Your task to perform on an android device: Go to Maps Image 0: 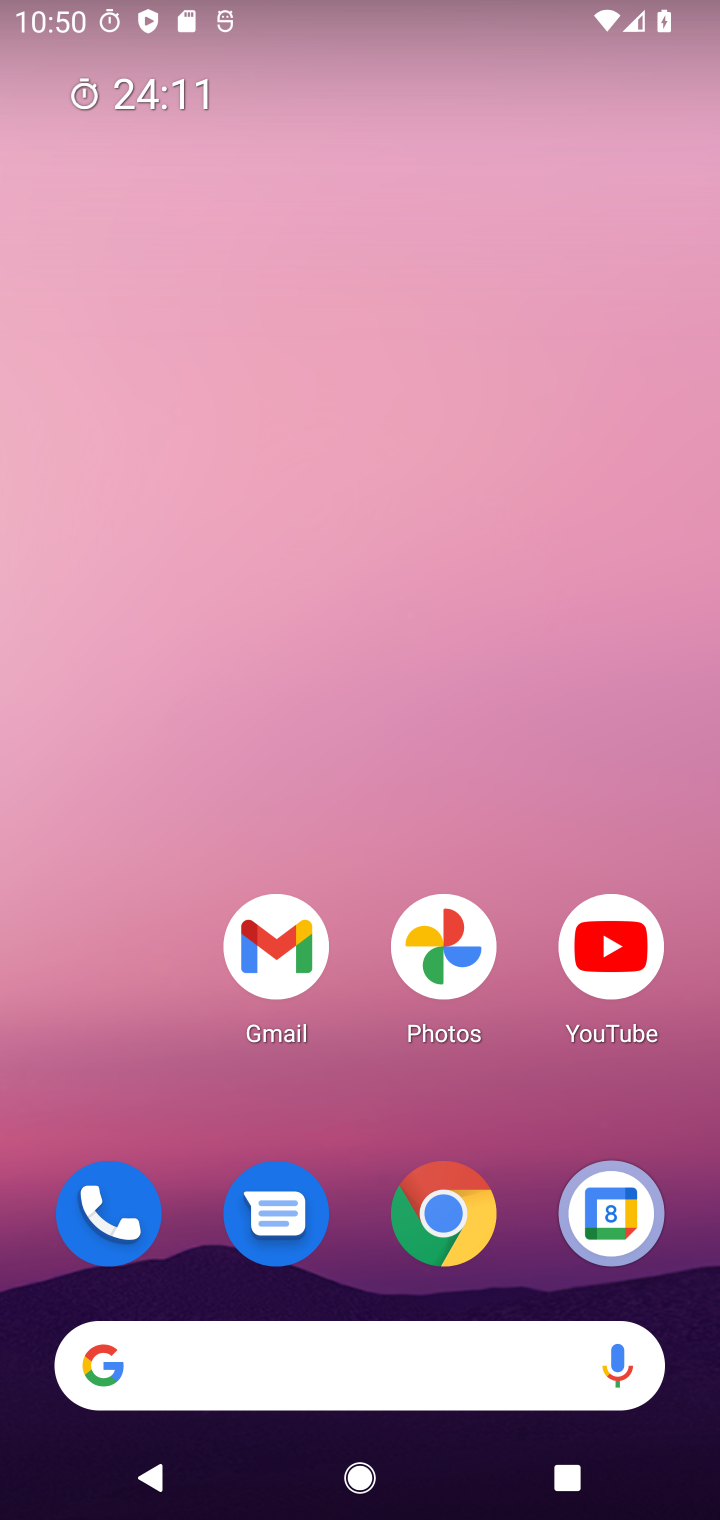
Step 0: drag from (376, 1034) to (421, 329)
Your task to perform on an android device: Go to Maps Image 1: 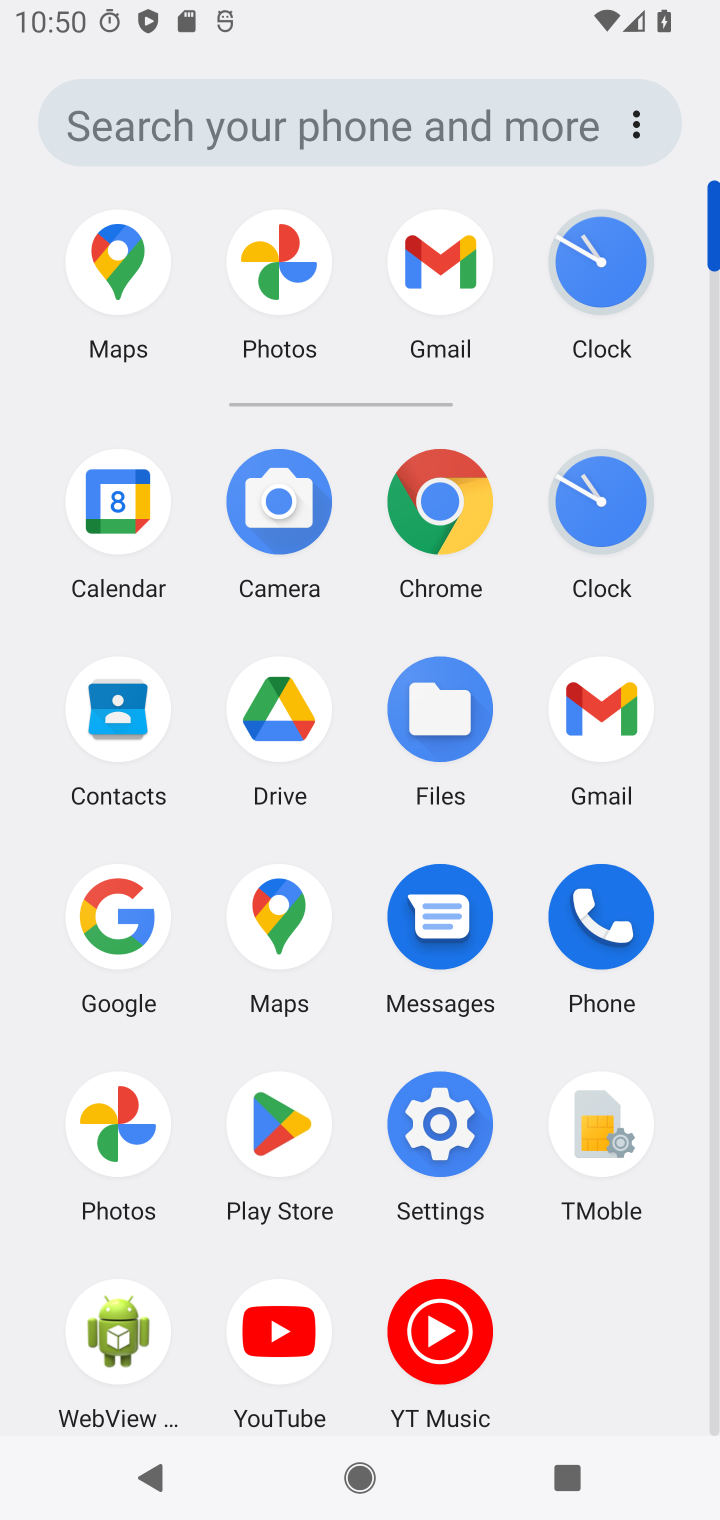
Step 1: click (301, 950)
Your task to perform on an android device: Go to Maps Image 2: 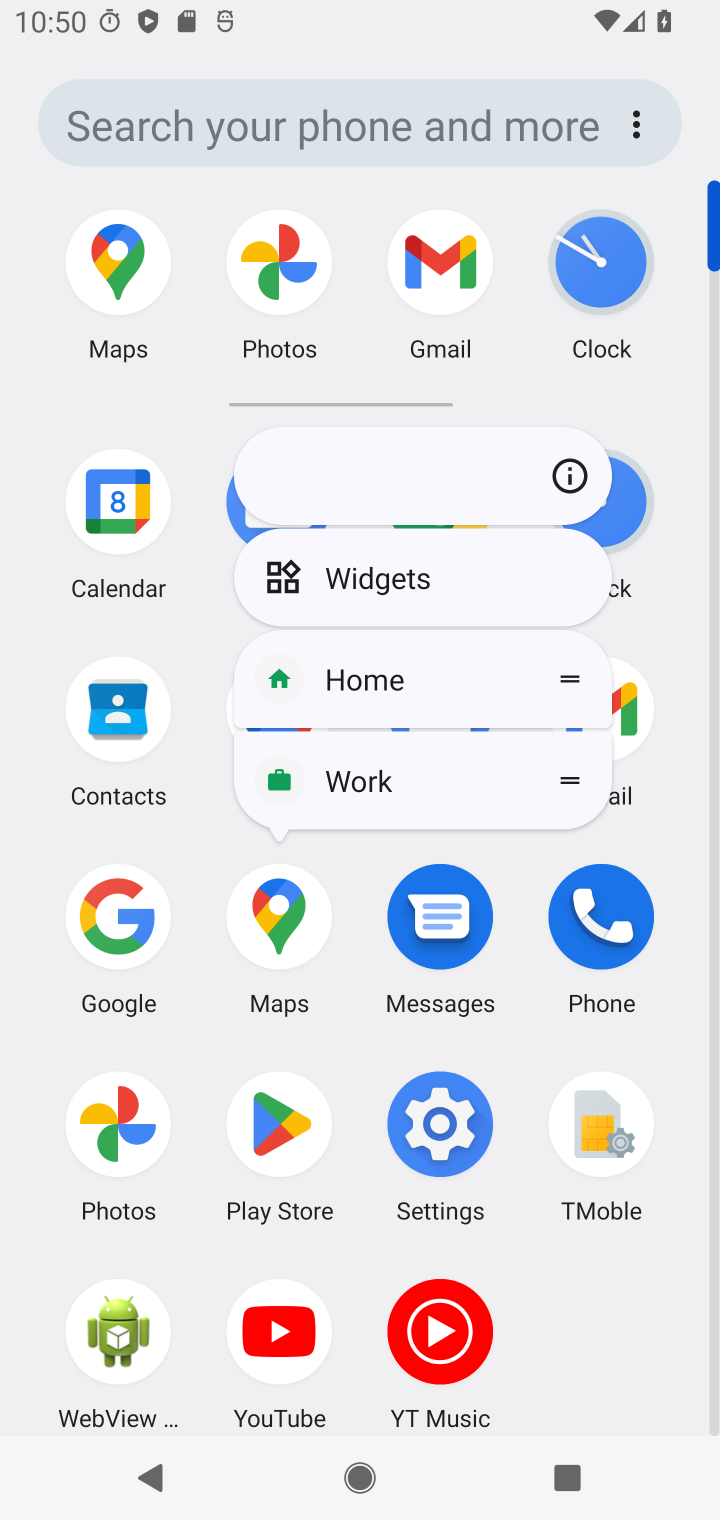
Step 2: click (301, 948)
Your task to perform on an android device: Go to Maps Image 3: 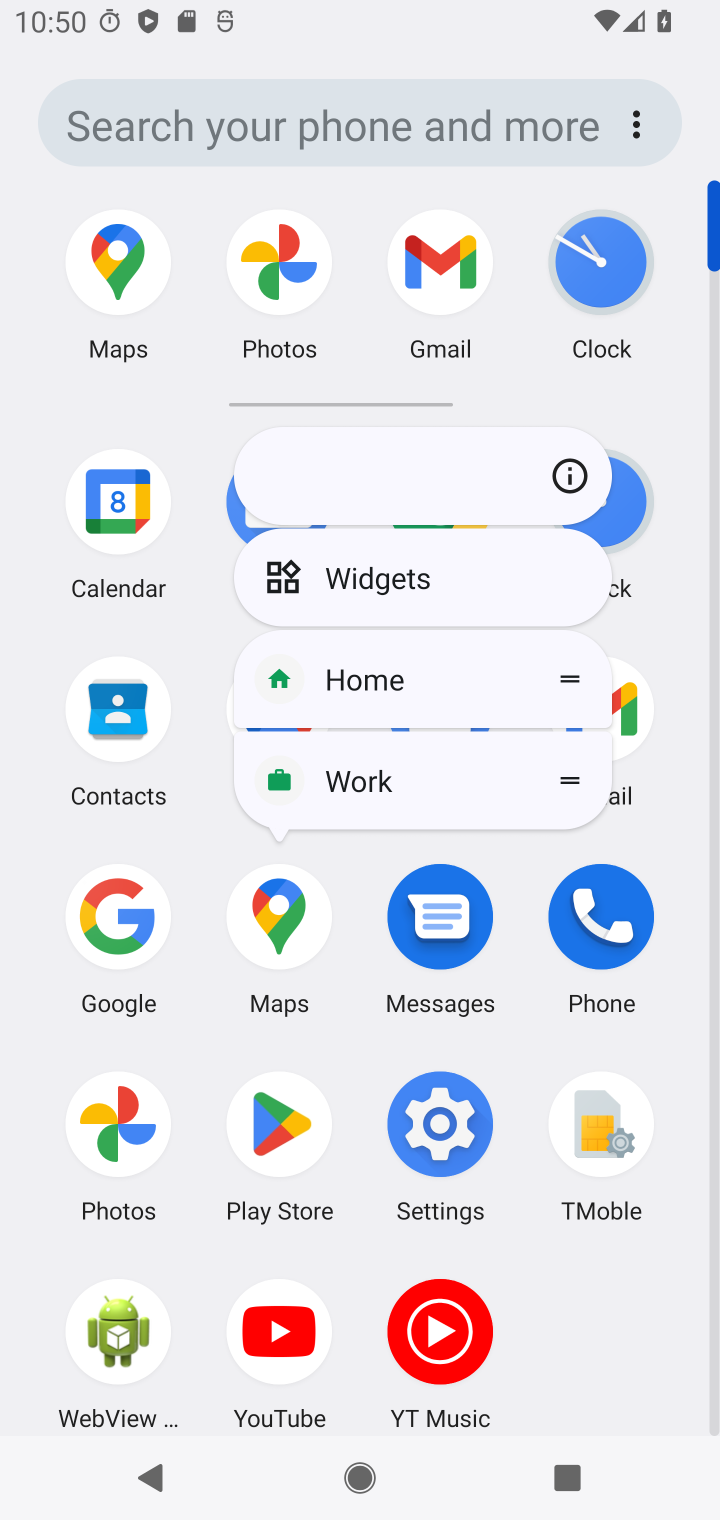
Step 3: click (279, 945)
Your task to perform on an android device: Go to Maps Image 4: 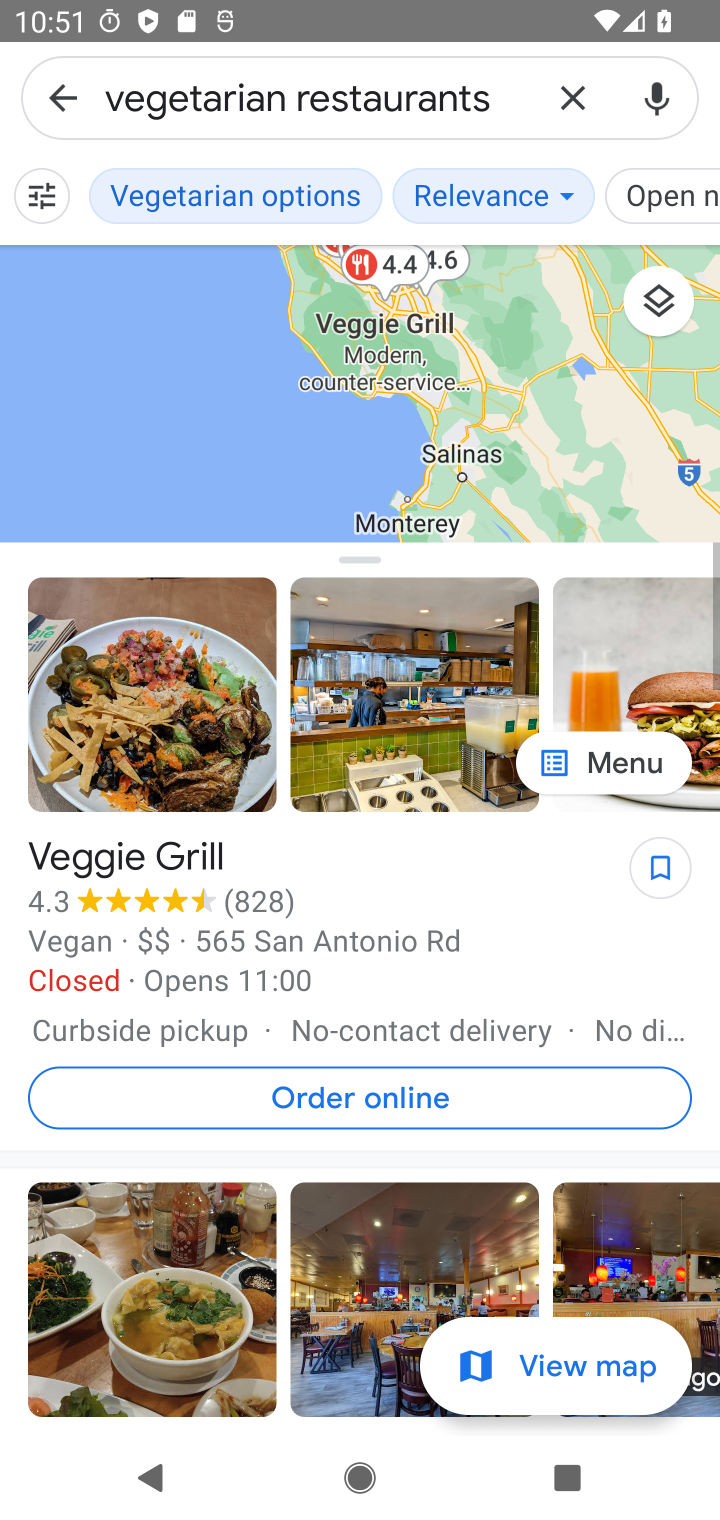
Step 4: task complete